Your task to perform on an android device: Search for the new ikea dresser Image 0: 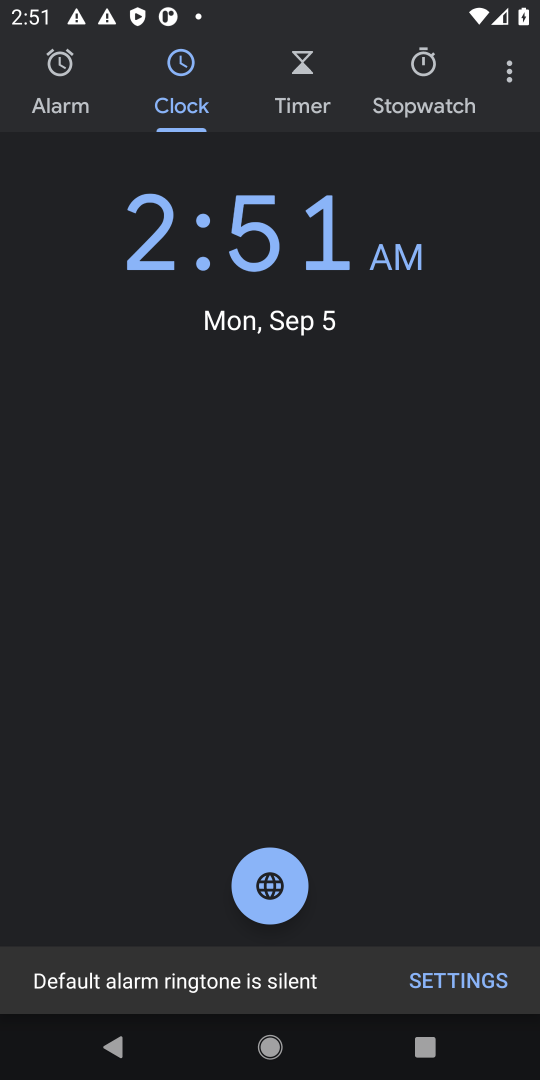
Step 0: press home button
Your task to perform on an android device: Search for the new ikea dresser Image 1: 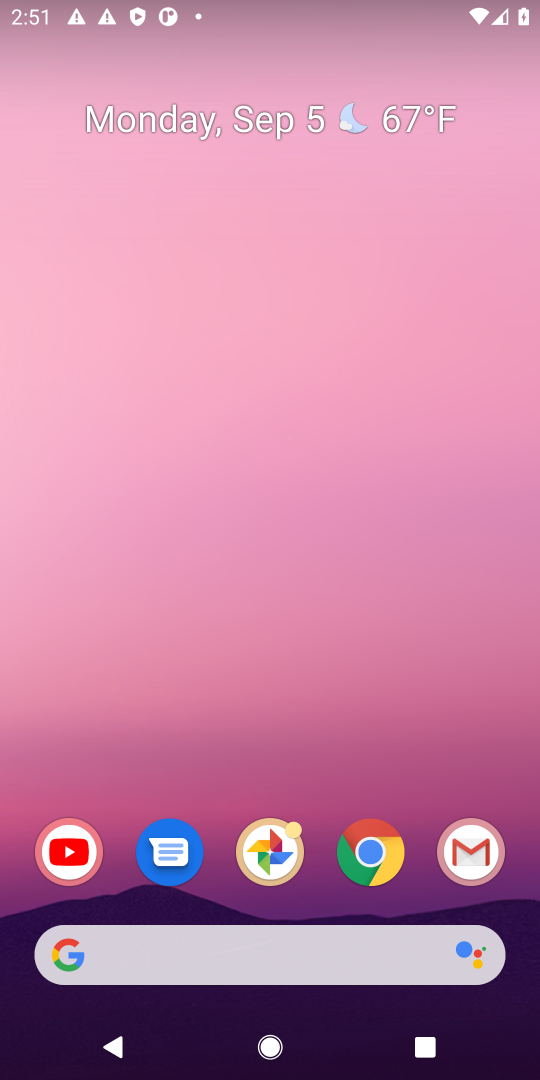
Step 1: click (376, 858)
Your task to perform on an android device: Search for the new ikea dresser Image 2: 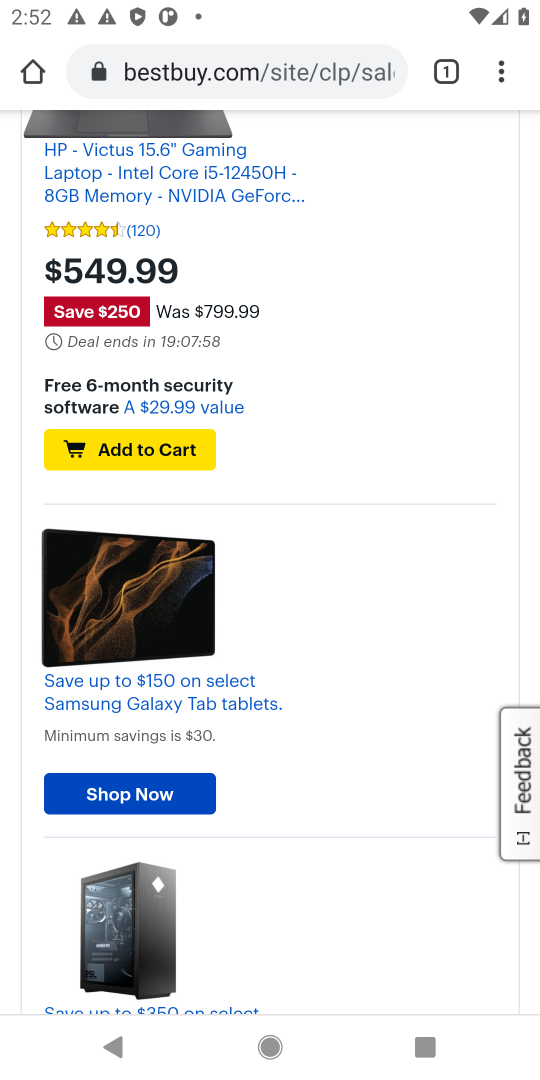
Step 2: click (256, 50)
Your task to perform on an android device: Search for the new ikea dresser Image 3: 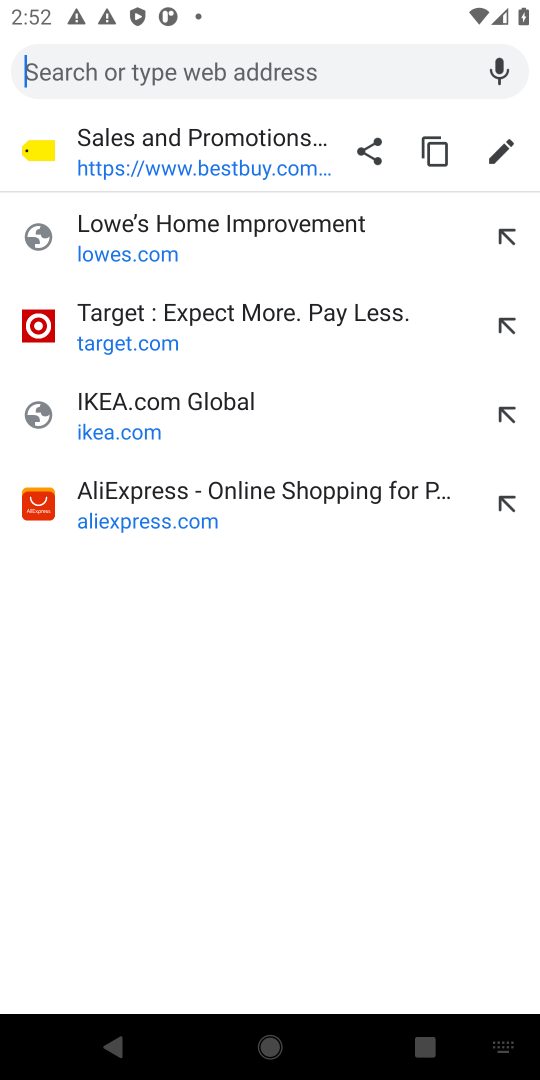
Step 3: type "new ikea dresser"
Your task to perform on an android device: Search for the new ikea dresser Image 4: 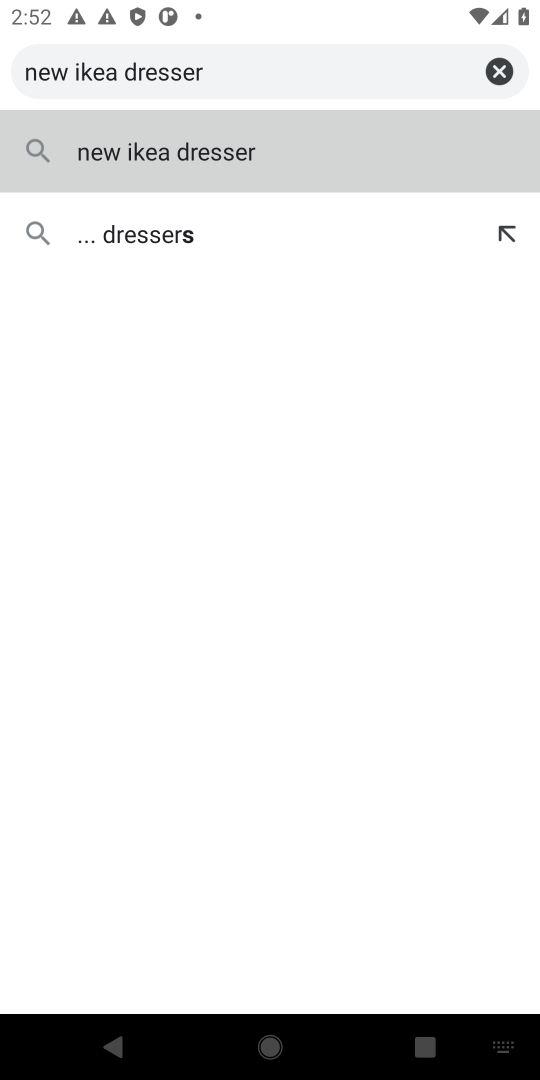
Step 4: click (154, 146)
Your task to perform on an android device: Search for the new ikea dresser Image 5: 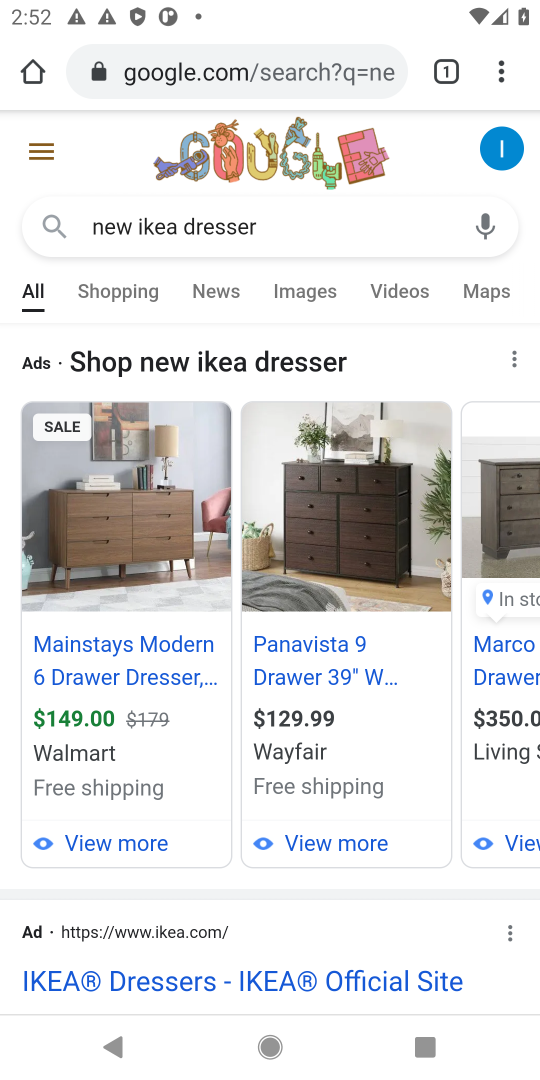
Step 5: drag from (232, 391) to (248, 30)
Your task to perform on an android device: Search for the new ikea dresser Image 6: 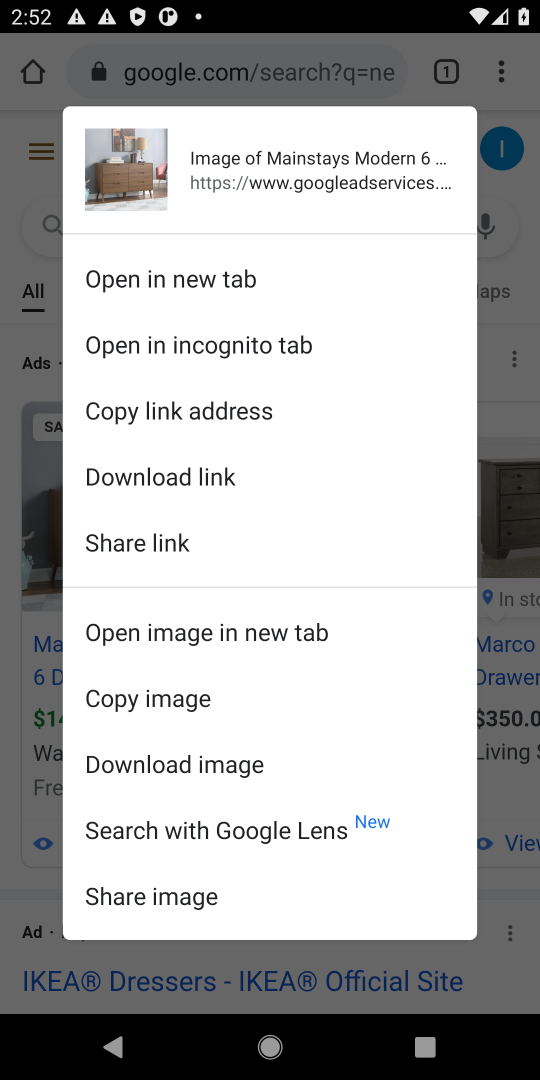
Step 6: click (520, 1002)
Your task to perform on an android device: Search for the new ikea dresser Image 7: 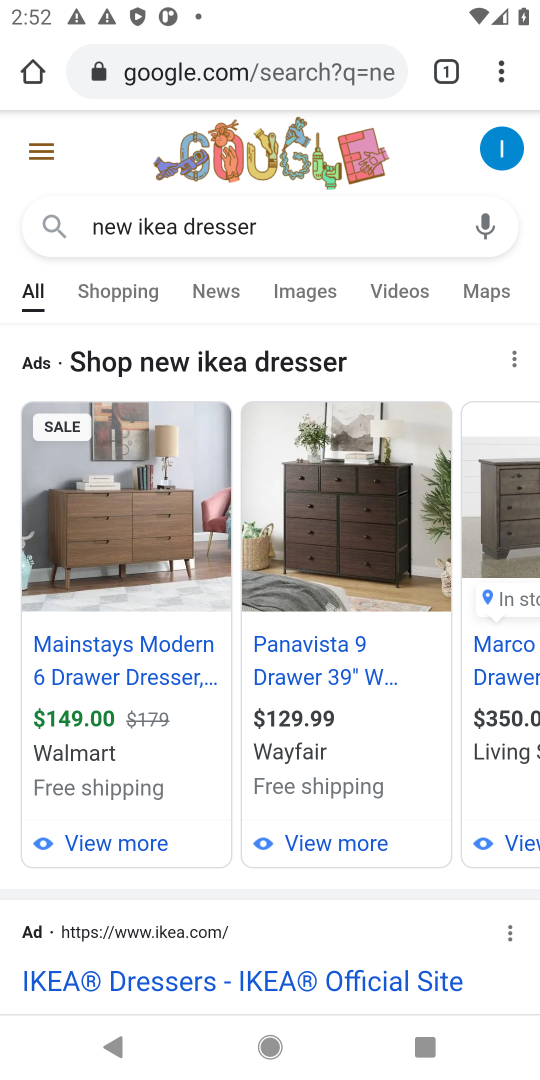
Step 7: drag from (237, 541) to (241, 285)
Your task to perform on an android device: Search for the new ikea dresser Image 8: 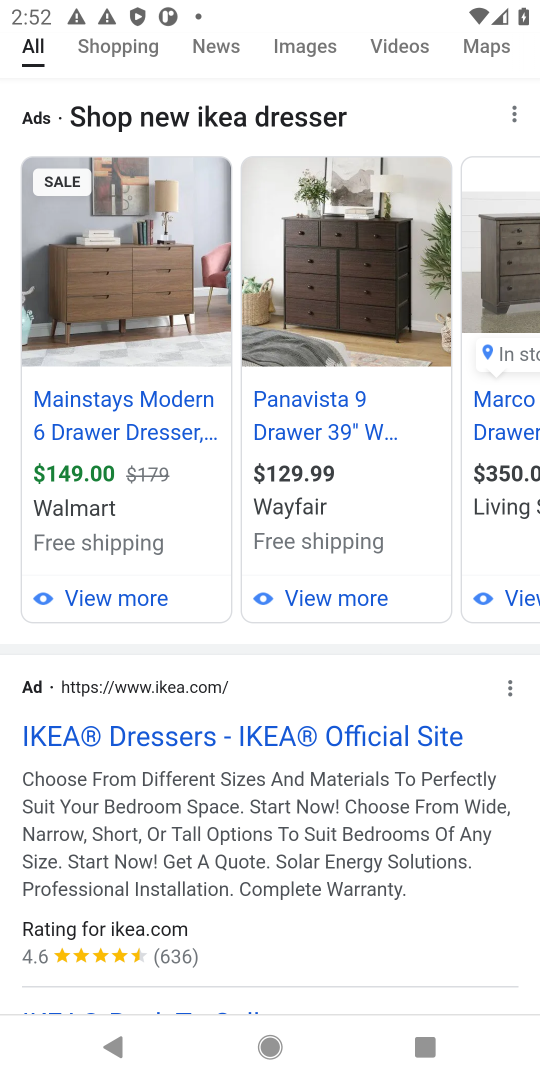
Step 8: drag from (242, 566) to (236, 82)
Your task to perform on an android device: Search for the new ikea dresser Image 9: 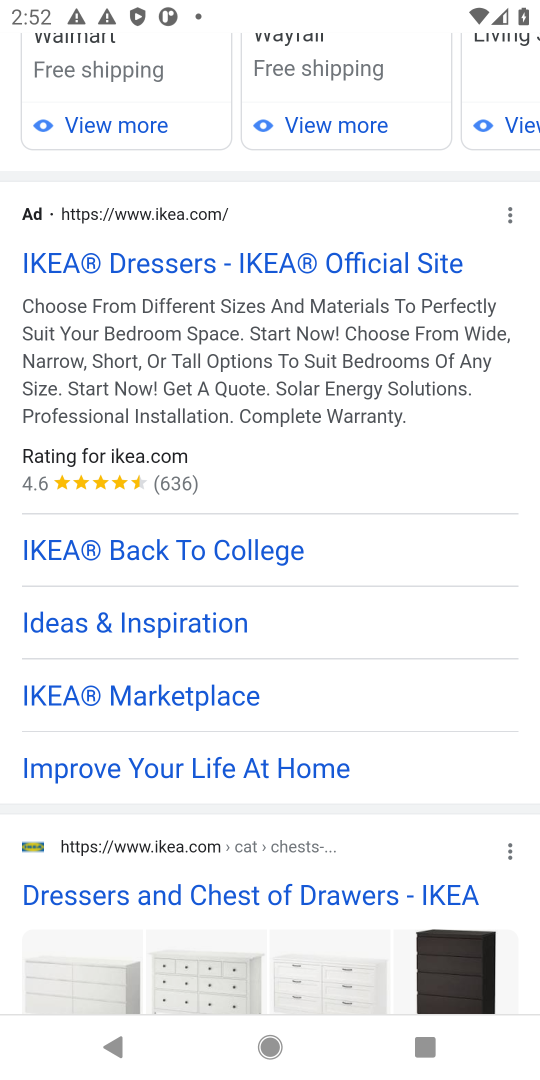
Step 9: drag from (346, 810) to (316, 142)
Your task to perform on an android device: Search for the new ikea dresser Image 10: 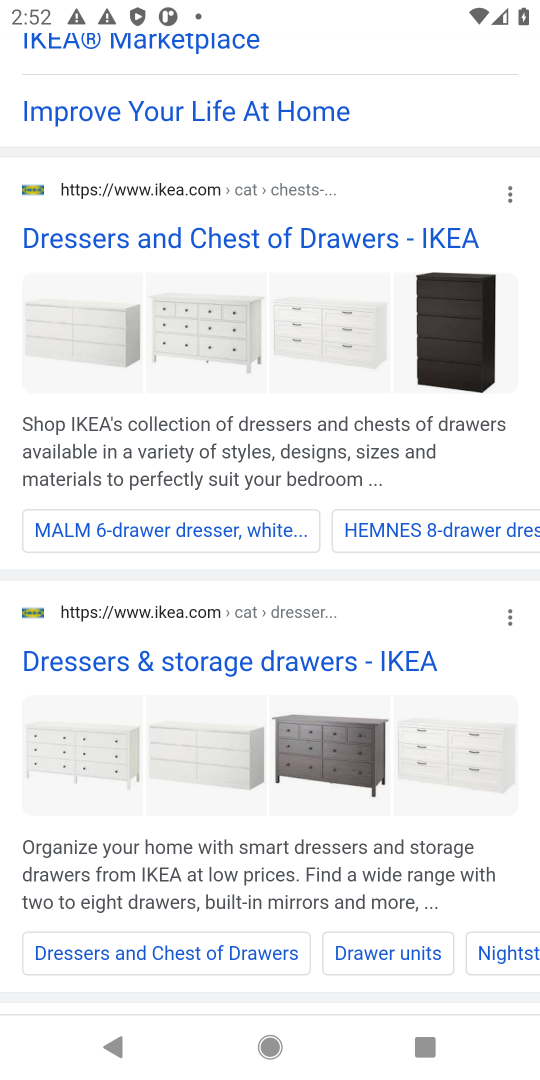
Step 10: click (189, 234)
Your task to perform on an android device: Search for the new ikea dresser Image 11: 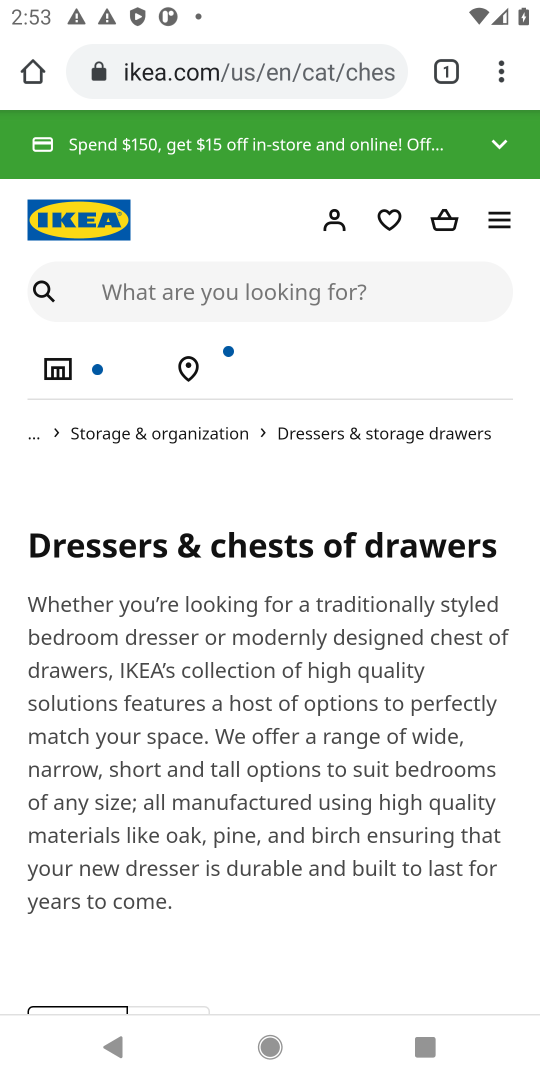
Step 11: task complete